Your task to perform on an android device: refresh tabs in the chrome app Image 0: 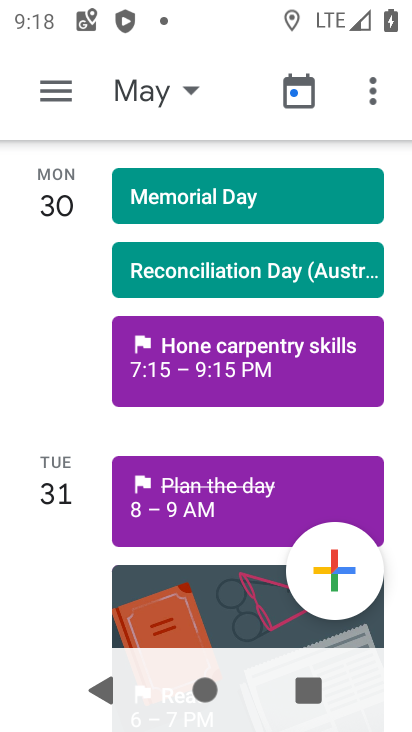
Step 0: press home button
Your task to perform on an android device: refresh tabs in the chrome app Image 1: 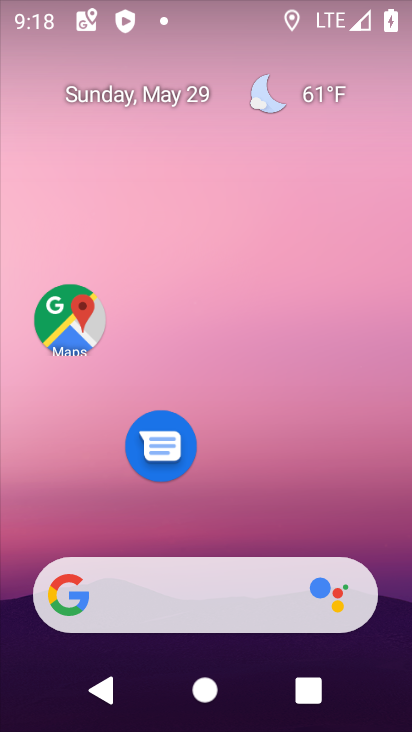
Step 1: drag from (233, 526) to (230, 215)
Your task to perform on an android device: refresh tabs in the chrome app Image 2: 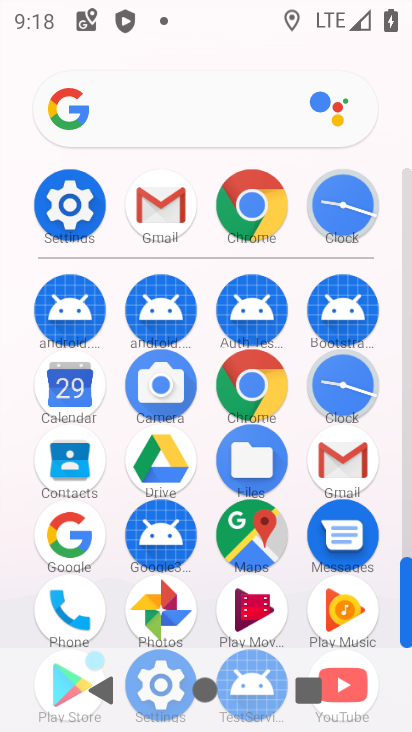
Step 2: click (230, 215)
Your task to perform on an android device: refresh tabs in the chrome app Image 3: 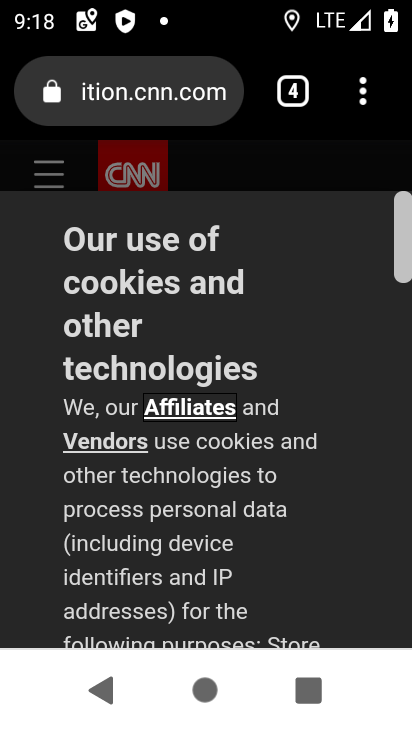
Step 3: task complete